Your task to perform on an android device: toggle notifications settings in the gmail app Image 0: 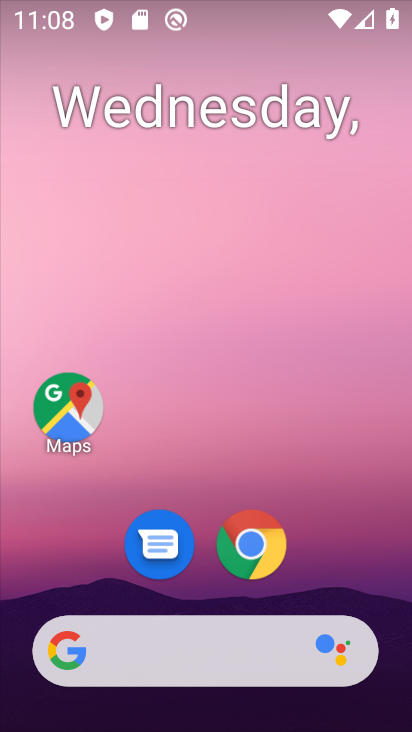
Step 0: drag from (207, 598) to (217, 42)
Your task to perform on an android device: toggle notifications settings in the gmail app Image 1: 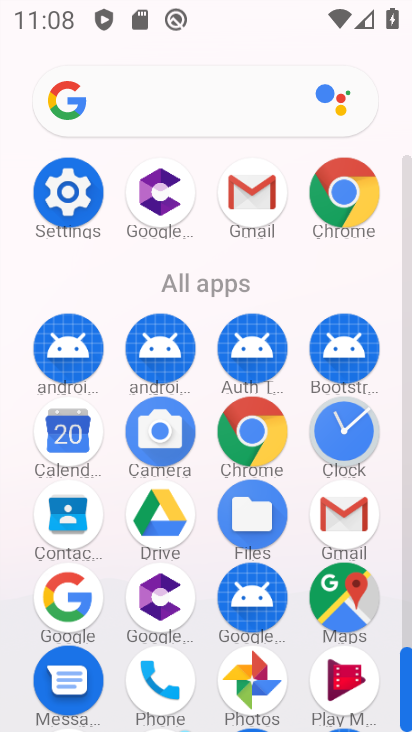
Step 1: click (264, 208)
Your task to perform on an android device: toggle notifications settings in the gmail app Image 2: 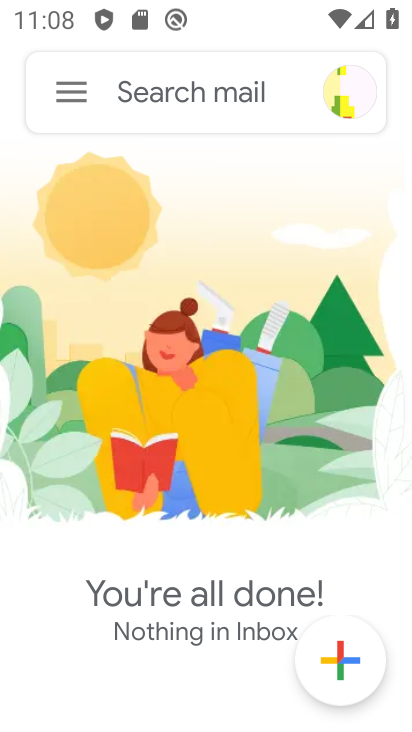
Step 2: click (60, 98)
Your task to perform on an android device: toggle notifications settings in the gmail app Image 3: 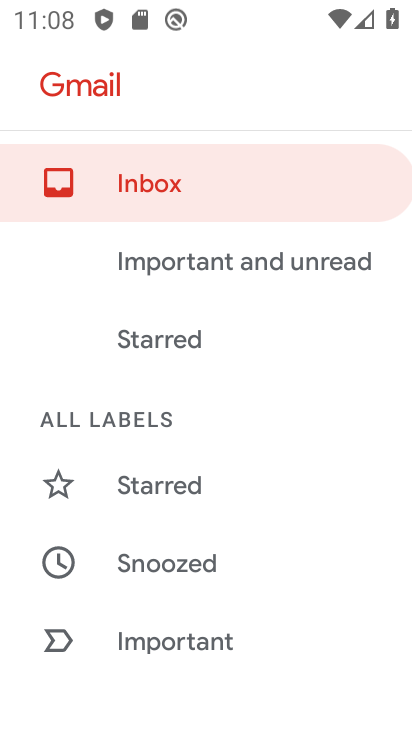
Step 3: drag from (188, 635) to (221, 104)
Your task to perform on an android device: toggle notifications settings in the gmail app Image 4: 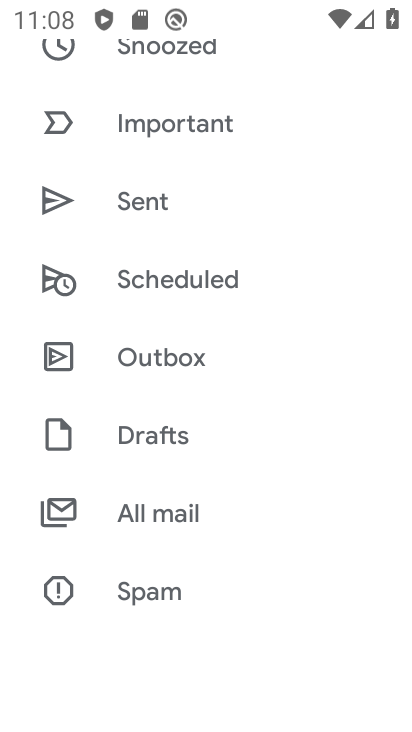
Step 4: drag from (171, 568) to (190, 228)
Your task to perform on an android device: toggle notifications settings in the gmail app Image 5: 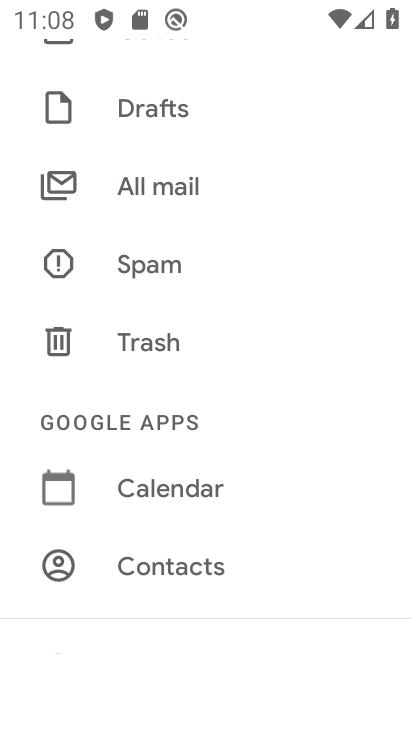
Step 5: drag from (152, 555) to (139, 247)
Your task to perform on an android device: toggle notifications settings in the gmail app Image 6: 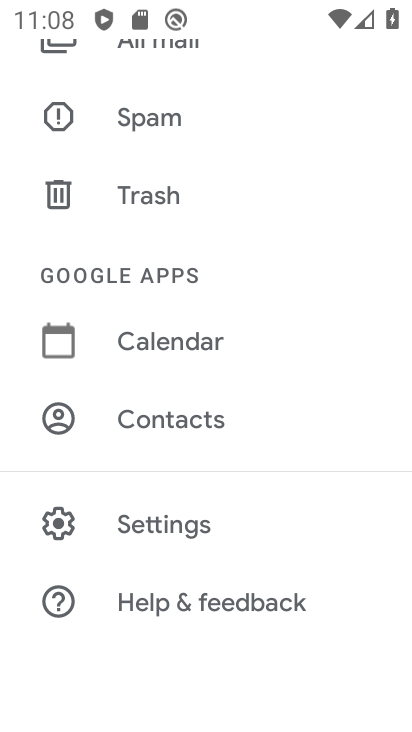
Step 6: click (163, 526)
Your task to perform on an android device: toggle notifications settings in the gmail app Image 7: 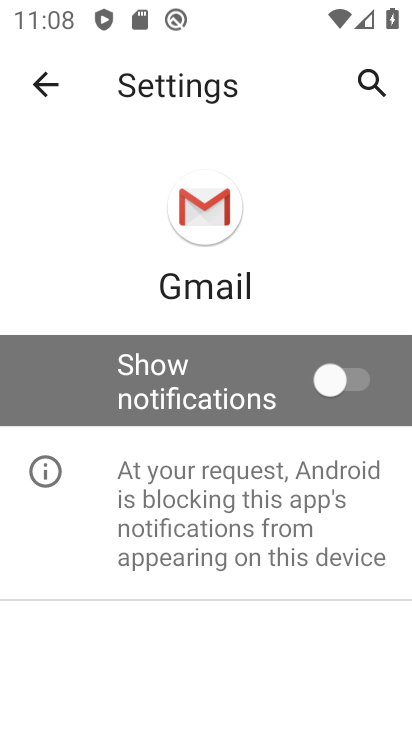
Step 7: click (321, 384)
Your task to perform on an android device: toggle notifications settings in the gmail app Image 8: 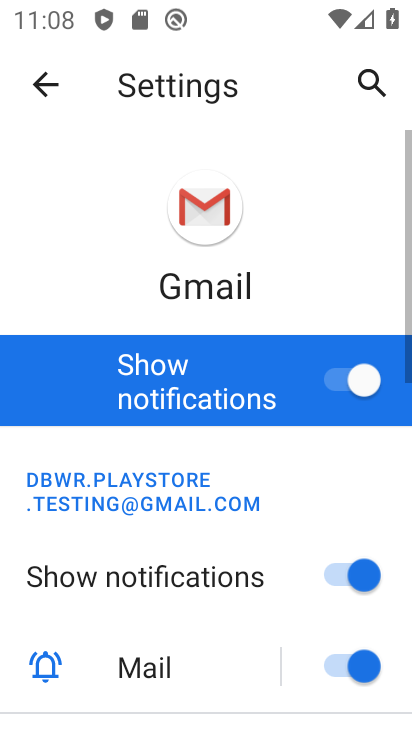
Step 8: task complete